Your task to perform on an android device: check storage Image 0: 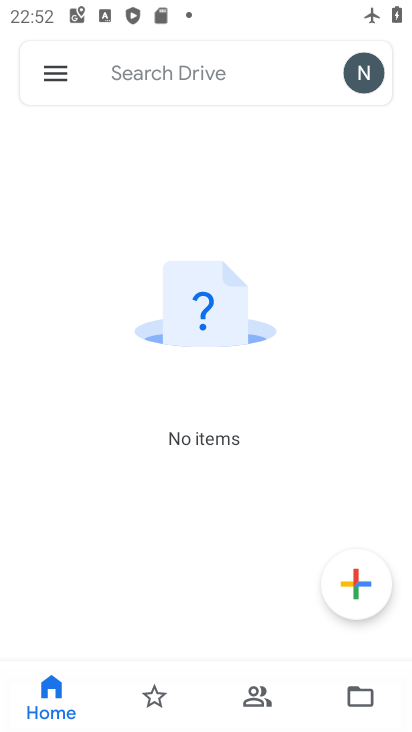
Step 0: press home button
Your task to perform on an android device: check storage Image 1: 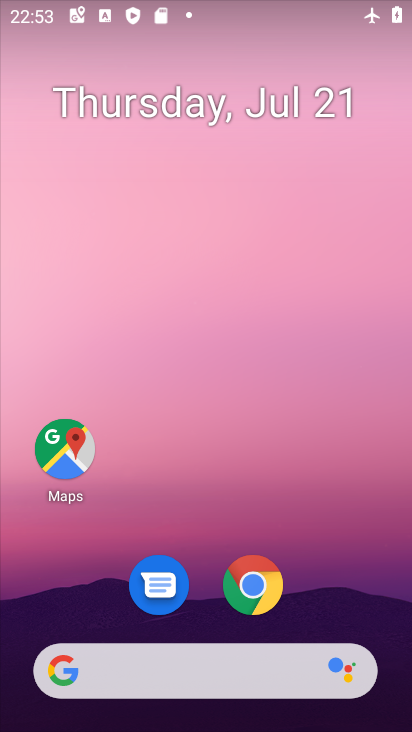
Step 1: drag from (233, 514) to (264, 22)
Your task to perform on an android device: check storage Image 2: 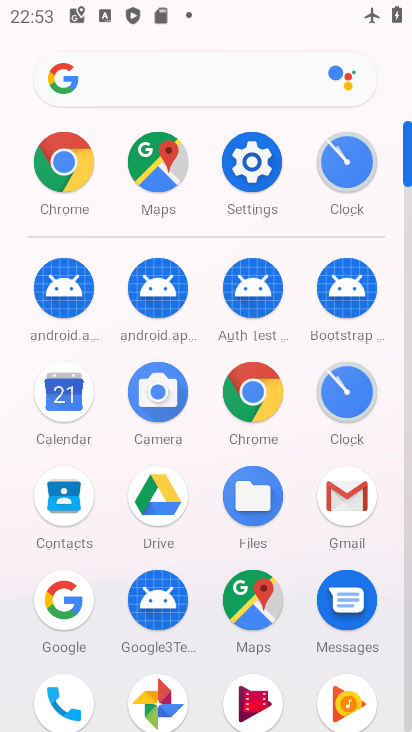
Step 2: click (259, 170)
Your task to perform on an android device: check storage Image 3: 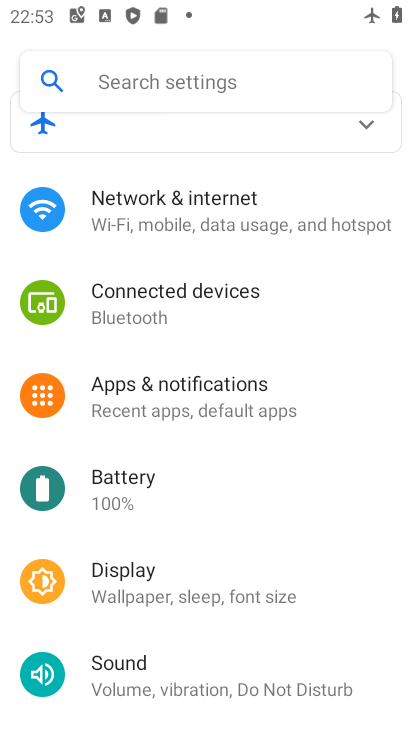
Step 3: drag from (203, 513) to (241, 176)
Your task to perform on an android device: check storage Image 4: 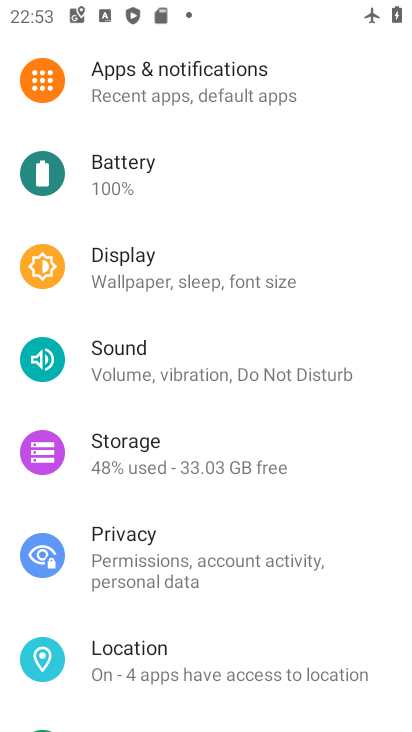
Step 4: click (162, 446)
Your task to perform on an android device: check storage Image 5: 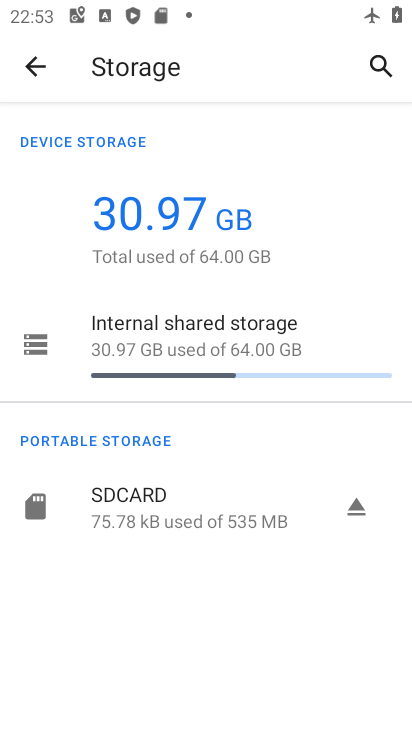
Step 5: task complete